Your task to perform on an android device: Open Google Chrome and open the bookmarks view Image 0: 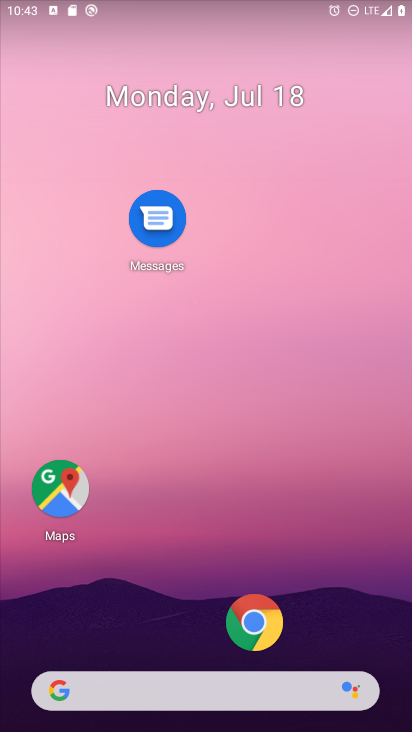
Step 0: click (265, 626)
Your task to perform on an android device: Open Google Chrome and open the bookmarks view Image 1: 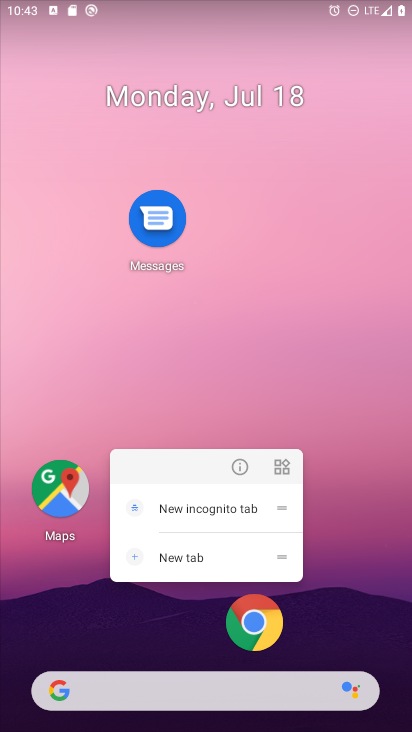
Step 1: click (248, 638)
Your task to perform on an android device: Open Google Chrome and open the bookmarks view Image 2: 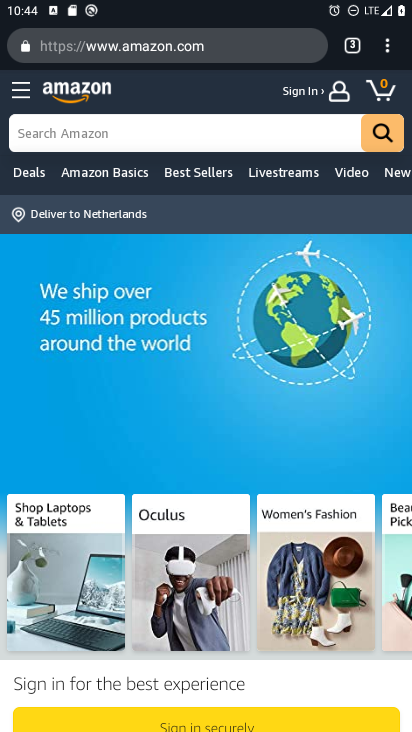
Step 2: click (394, 48)
Your task to perform on an android device: Open Google Chrome and open the bookmarks view Image 3: 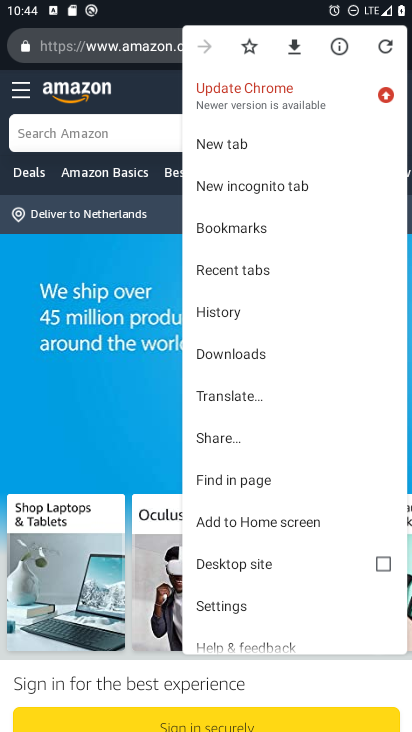
Step 3: click (243, 228)
Your task to perform on an android device: Open Google Chrome and open the bookmarks view Image 4: 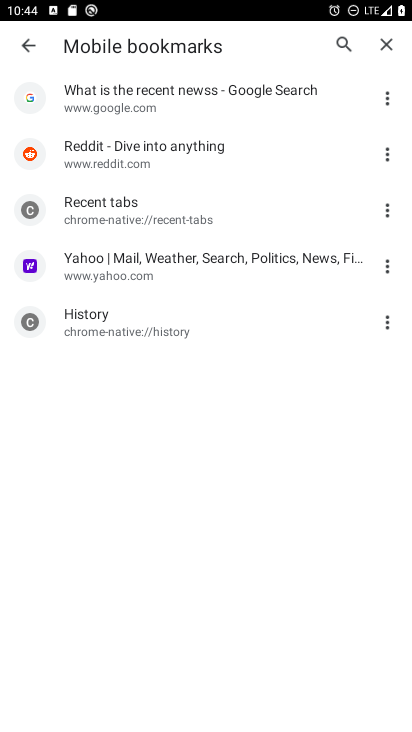
Step 4: task complete